Your task to perform on an android device: Open Youtube and go to "Your channel" Image 0: 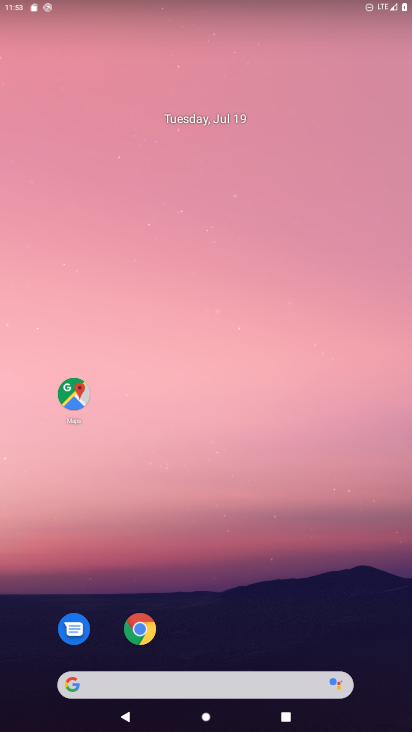
Step 0: drag from (189, 612) to (266, 0)
Your task to perform on an android device: Open Youtube and go to "Your channel" Image 1: 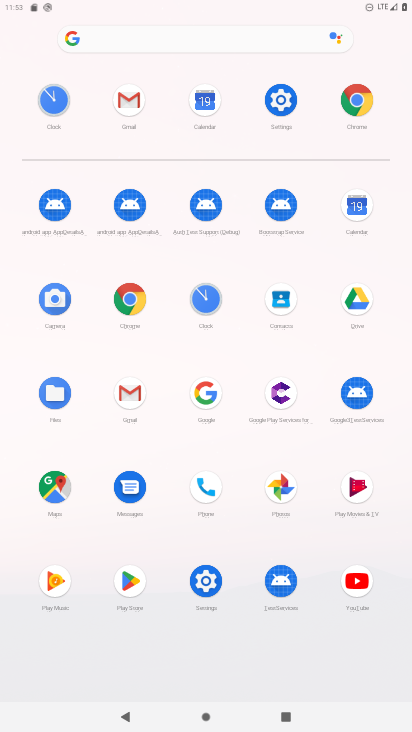
Step 1: click (353, 586)
Your task to perform on an android device: Open Youtube and go to "Your channel" Image 2: 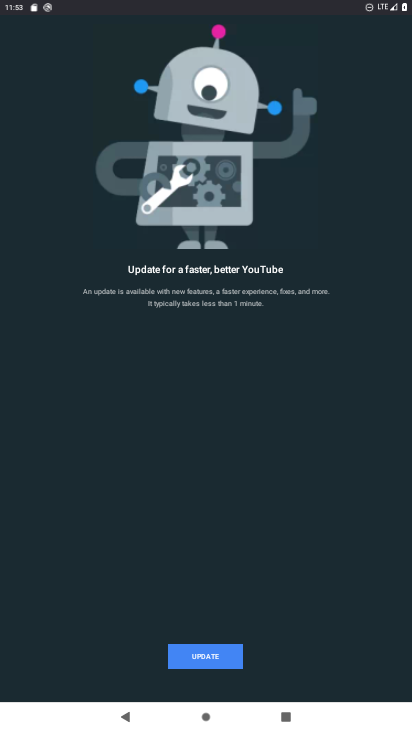
Step 2: click (210, 658)
Your task to perform on an android device: Open Youtube and go to "Your channel" Image 3: 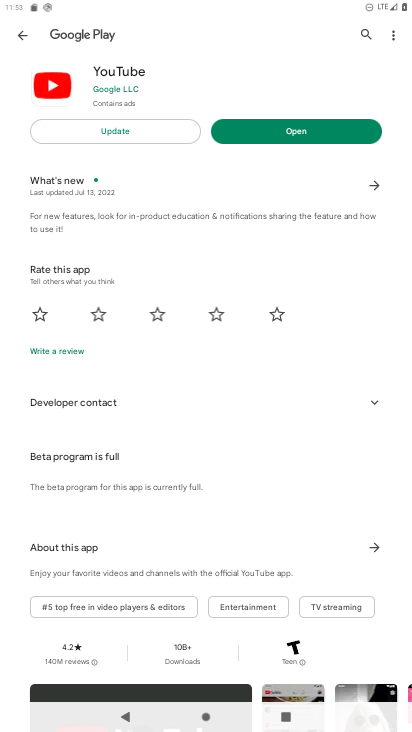
Step 3: click (68, 132)
Your task to perform on an android device: Open Youtube and go to "Your channel" Image 4: 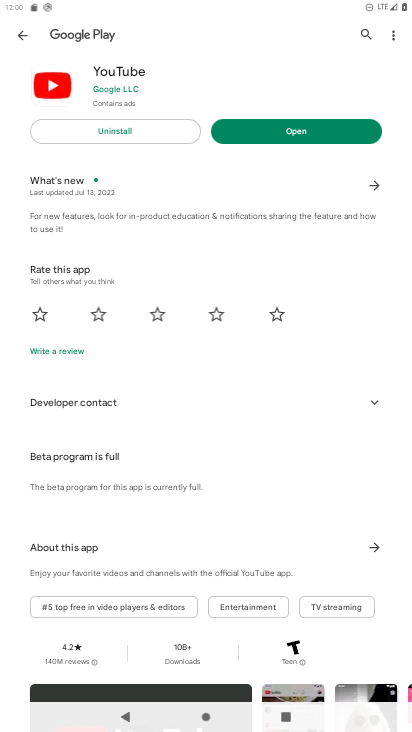
Step 4: press home button
Your task to perform on an android device: Open Youtube and go to "Your channel" Image 5: 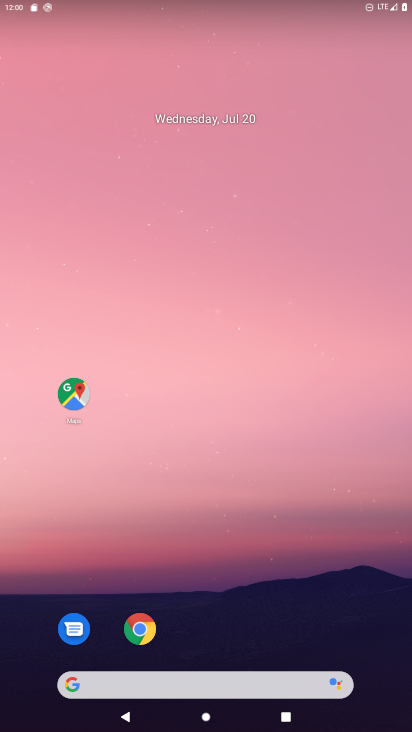
Step 5: click (242, 191)
Your task to perform on an android device: Open Youtube and go to "Your channel" Image 6: 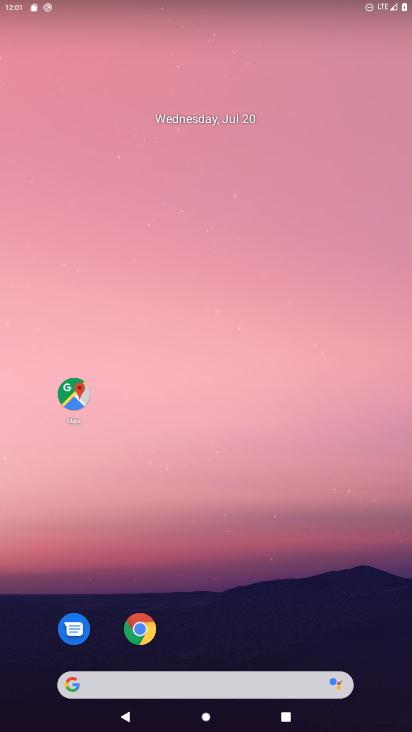
Step 6: drag from (193, 624) to (310, 177)
Your task to perform on an android device: Open Youtube and go to "Your channel" Image 7: 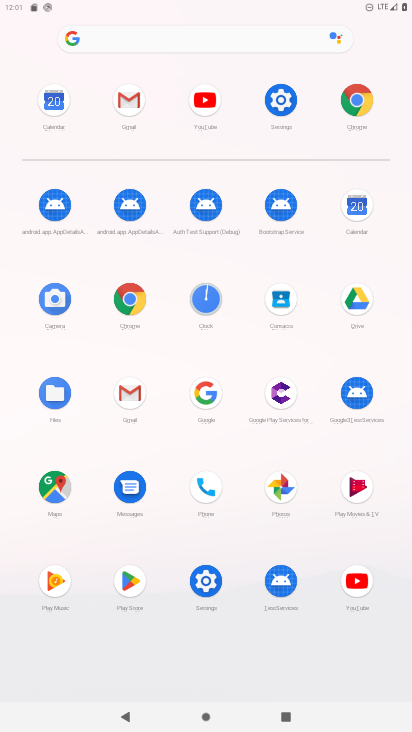
Step 7: click (353, 586)
Your task to perform on an android device: Open Youtube and go to "Your channel" Image 8: 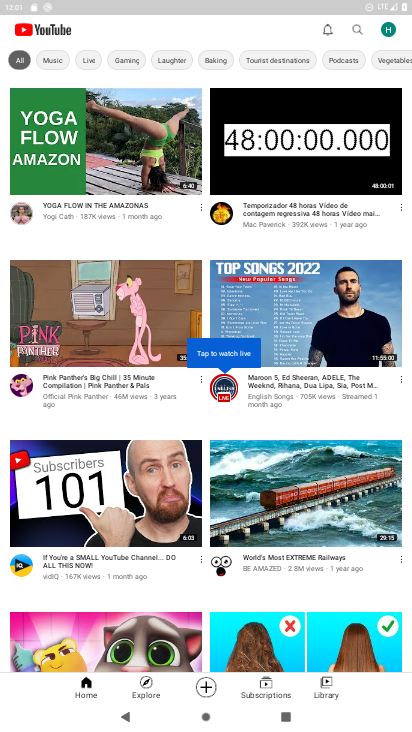
Step 8: click (387, 25)
Your task to perform on an android device: Open Youtube and go to "Your channel" Image 9: 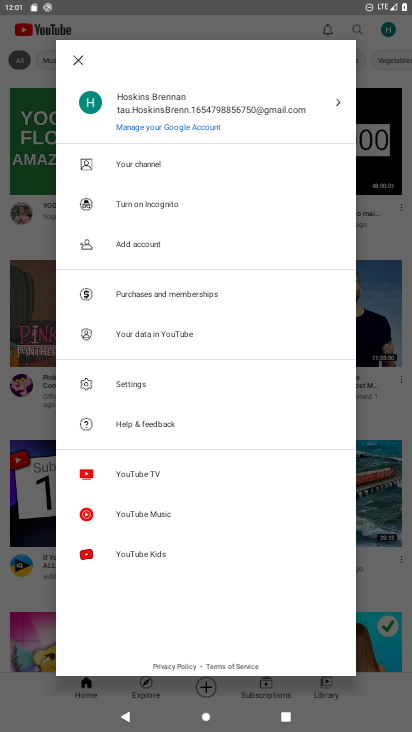
Step 9: click (142, 162)
Your task to perform on an android device: Open Youtube and go to "Your channel" Image 10: 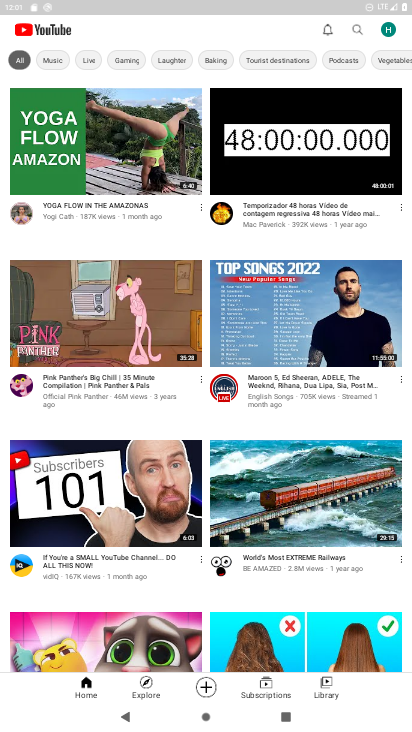
Step 10: task complete